Your task to perform on an android device: turn on improve location accuracy Image 0: 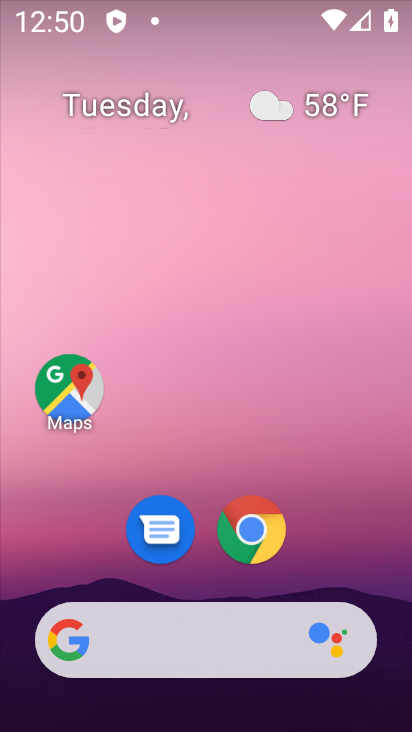
Step 0: drag from (251, 622) to (237, 494)
Your task to perform on an android device: turn on improve location accuracy Image 1: 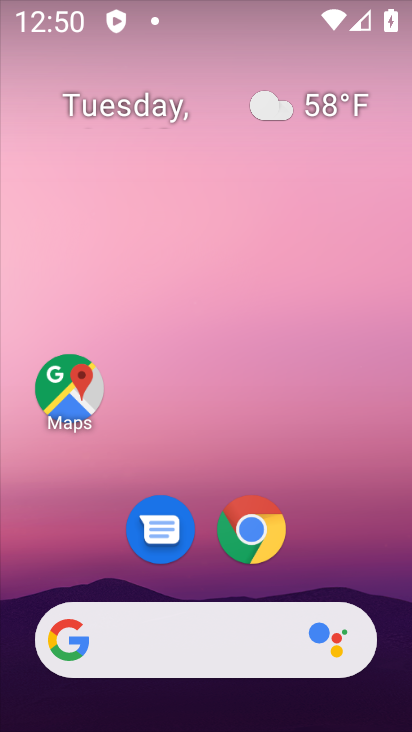
Step 1: click (222, 298)
Your task to perform on an android device: turn on improve location accuracy Image 2: 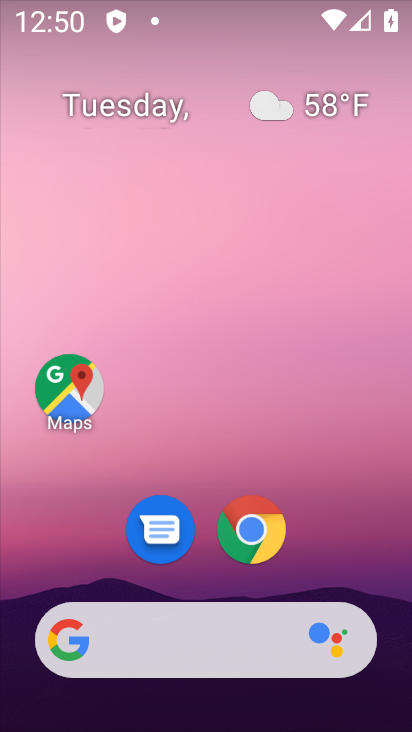
Step 2: drag from (247, 663) to (247, 117)
Your task to perform on an android device: turn on improve location accuracy Image 3: 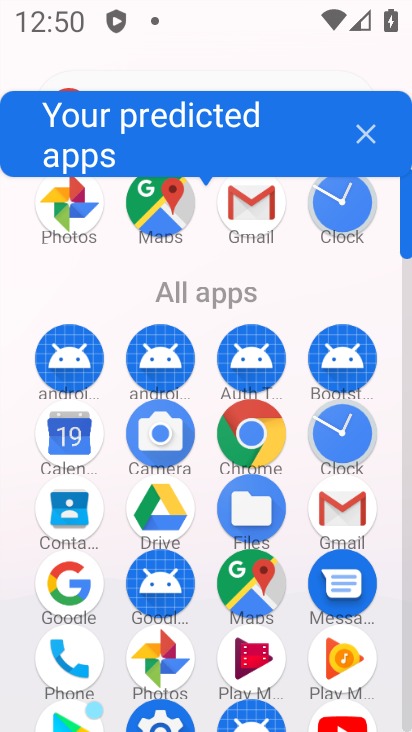
Step 3: drag from (233, 528) to (224, 139)
Your task to perform on an android device: turn on improve location accuracy Image 4: 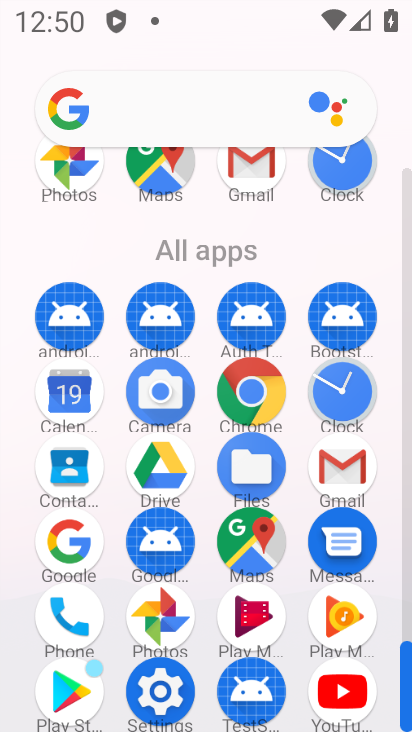
Step 4: drag from (289, 509) to (288, 176)
Your task to perform on an android device: turn on improve location accuracy Image 5: 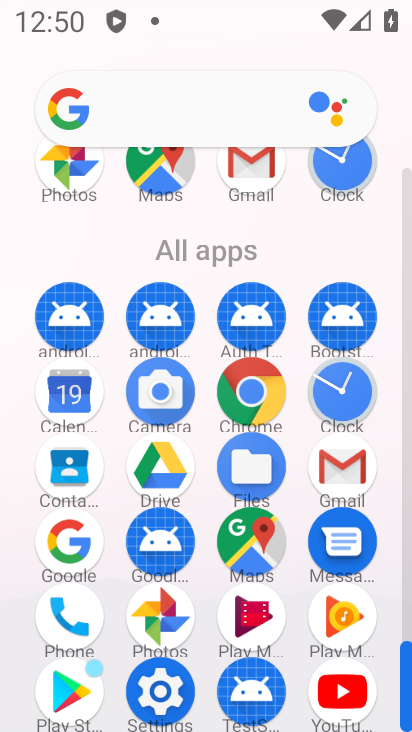
Step 5: click (172, 687)
Your task to perform on an android device: turn on improve location accuracy Image 6: 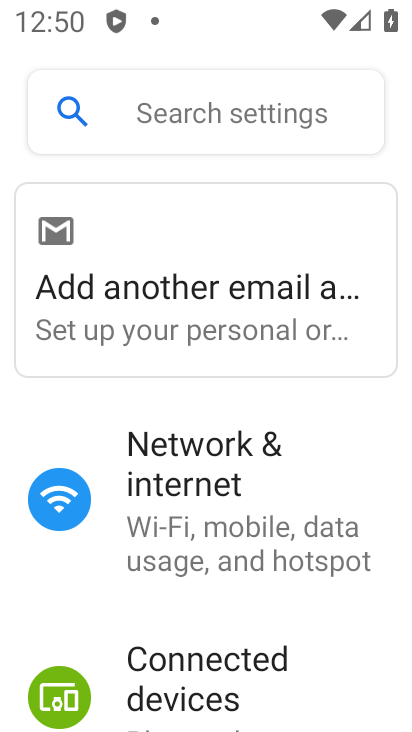
Step 6: drag from (203, 348) to (203, 212)
Your task to perform on an android device: turn on improve location accuracy Image 7: 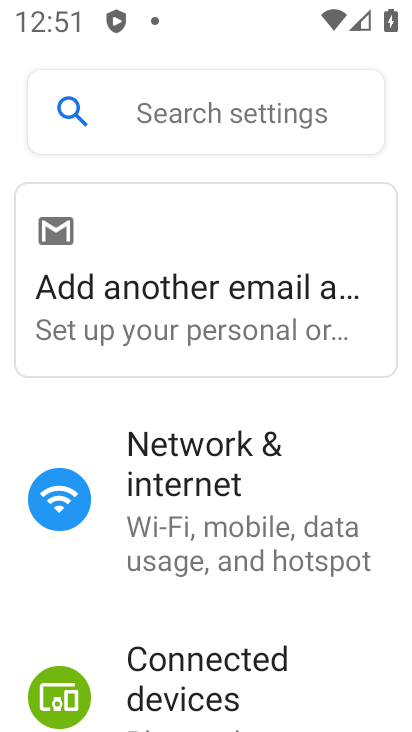
Step 7: drag from (172, 601) to (179, 83)
Your task to perform on an android device: turn on improve location accuracy Image 8: 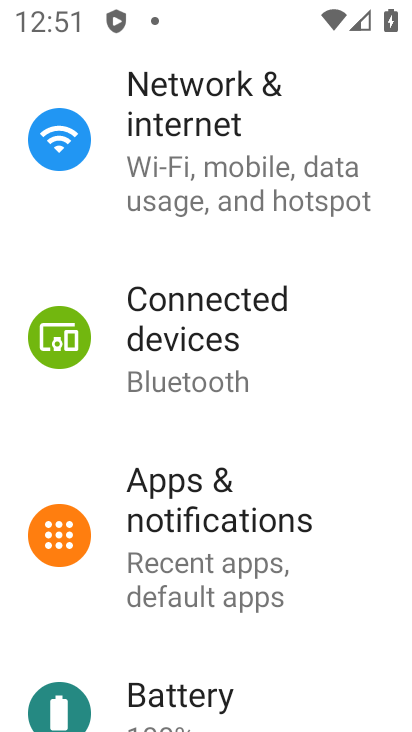
Step 8: drag from (215, 563) to (205, 87)
Your task to perform on an android device: turn on improve location accuracy Image 9: 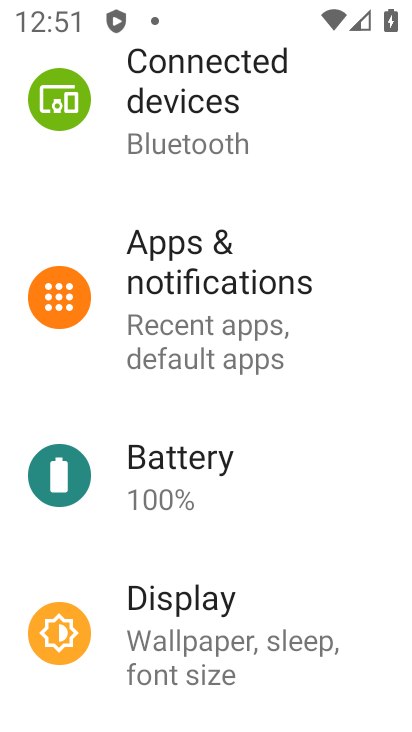
Step 9: drag from (206, 463) to (201, 160)
Your task to perform on an android device: turn on improve location accuracy Image 10: 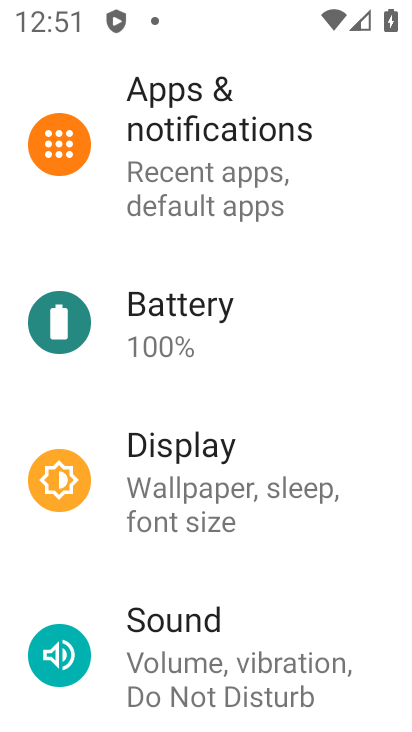
Step 10: drag from (196, 567) to (182, 211)
Your task to perform on an android device: turn on improve location accuracy Image 11: 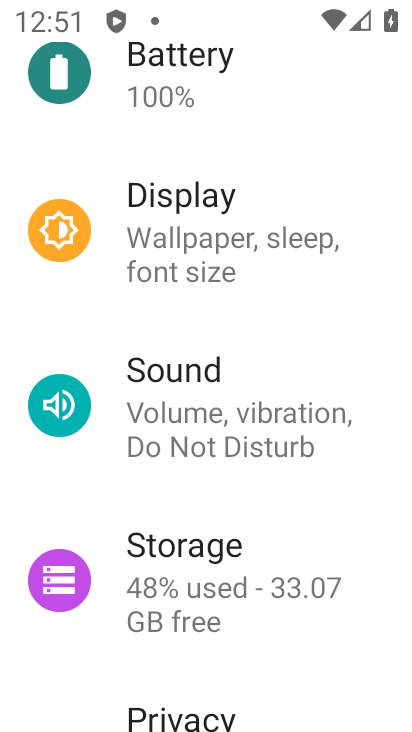
Step 11: drag from (216, 262) to (212, 109)
Your task to perform on an android device: turn on improve location accuracy Image 12: 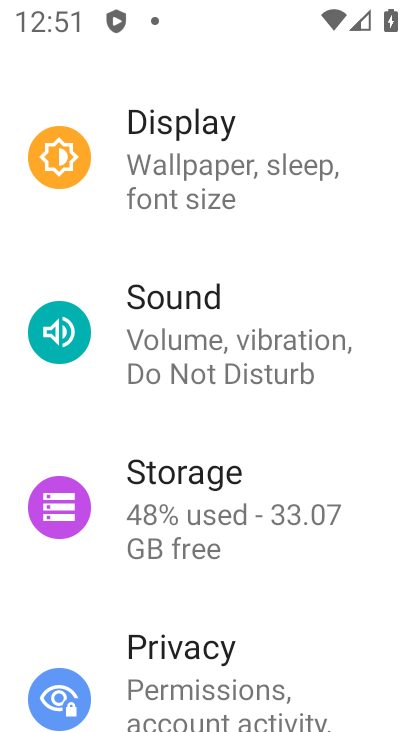
Step 12: drag from (214, 576) to (214, 70)
Your task to perform on an android device: turn on improve location accuracy Image 13: 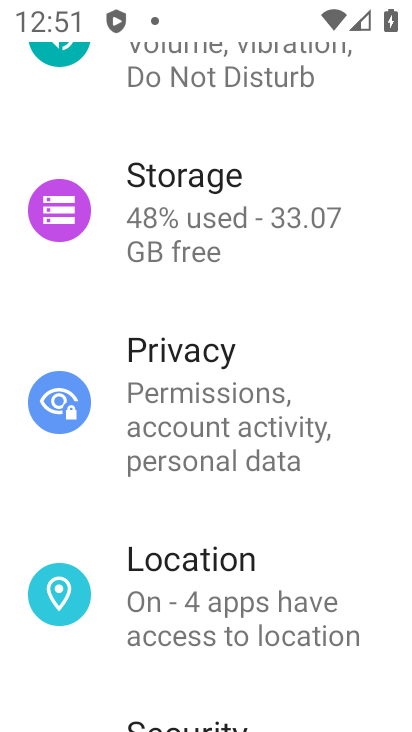
Step 13: click (246, 585)
Your task to perform on an android device: turn on improve location accuracy Image 14: 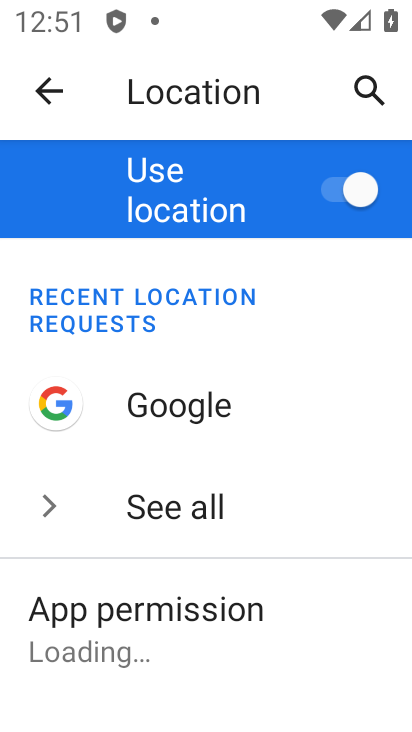
Step 14: drag from (211, 626) to (215, 132)
Your task to perform on an android device: turn on improve location accuracy Image 15: 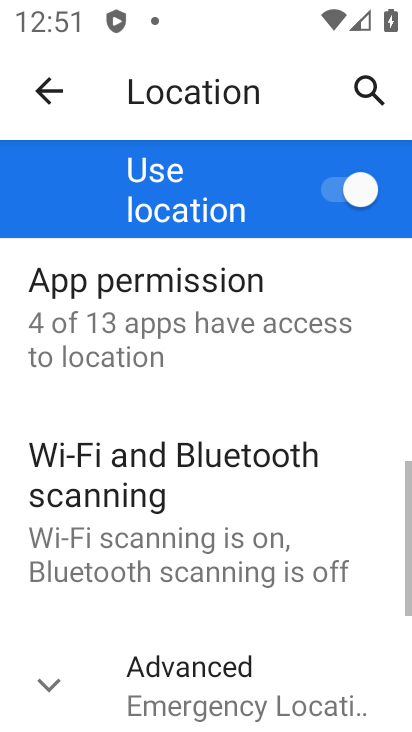
Step 15: click (204, 684)
Your task to perform on an android device: turn on improve location accuracy Image 16: 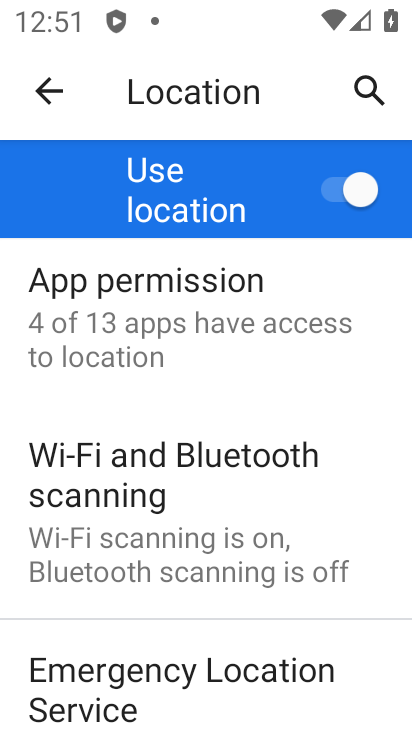
Step 16: drag from (225, 648) to (211, 116)
Your task to perform on an android device: turn on improve location accuracy Image 17: 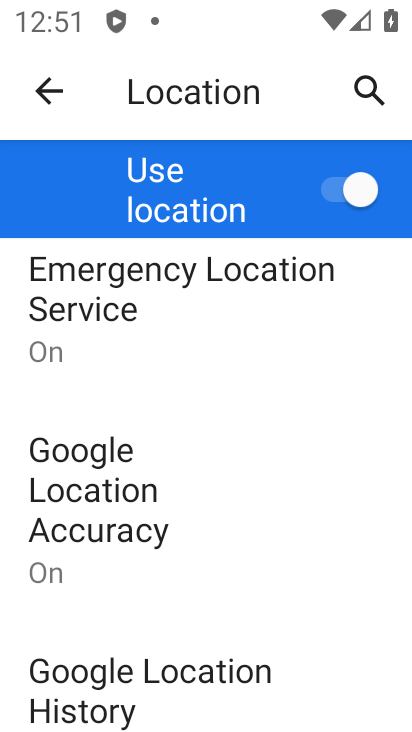
Step 17: click (172, 535)
Your task to perform on an android device: turn on improve location accuracy Image 18: 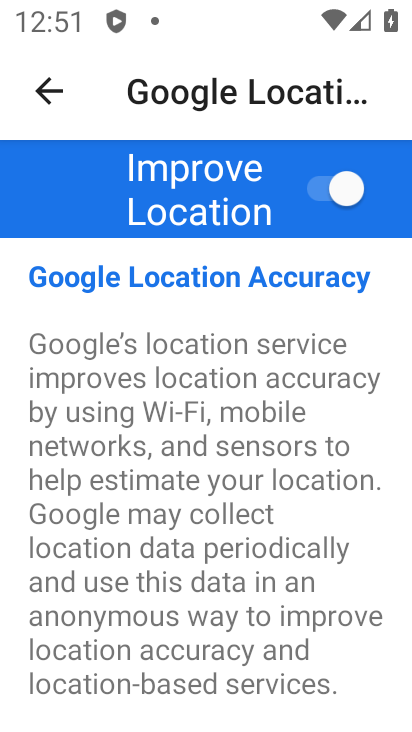
Step 18: task complete